Your task to perform on an android device: Open Wikipedia Image 0: 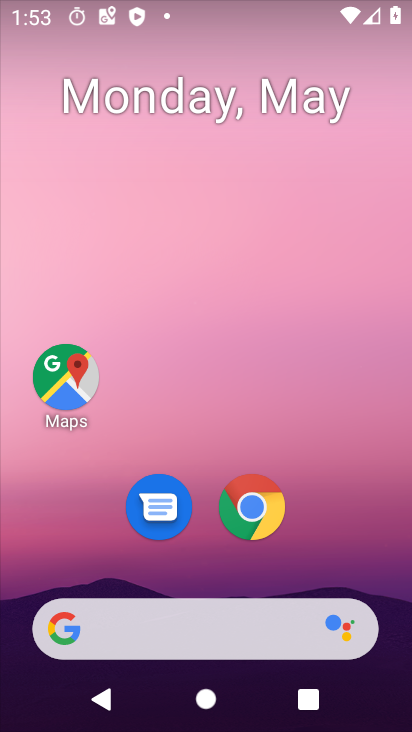
Step 0: drag from (399, 561) to (331, 184)
Your task to perform on an android device: Open Wikipedia Image 1: 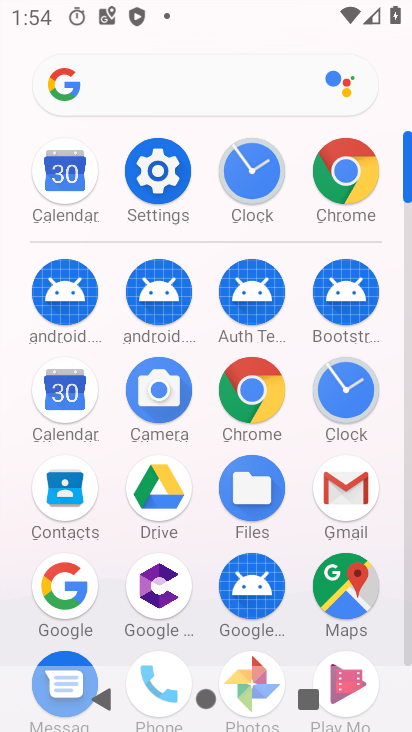
Step 1: click (262, 383)
Your task to perform on an android device: Open Wikipedia Image 2: 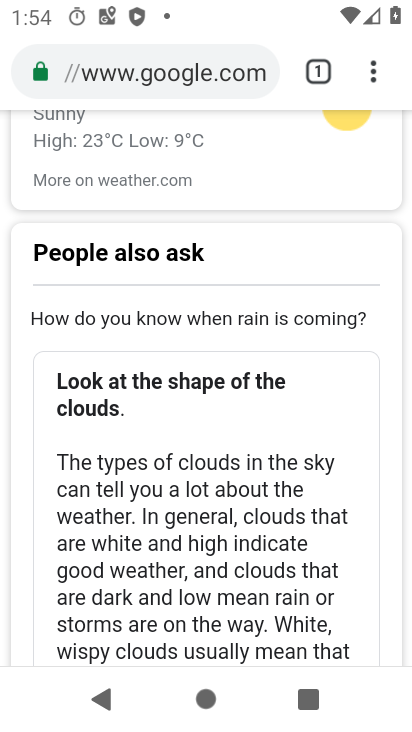
Step 2: click (321, 71)
Your task to perform on an android device: Open Wikipedia Image 3: 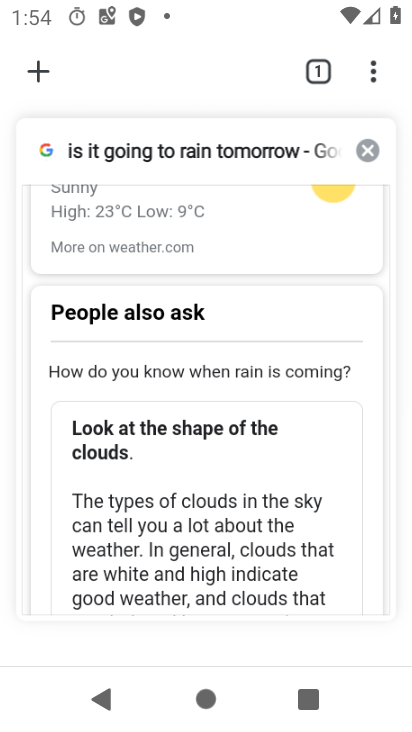
Step 3: click (32, 67)
Your task to perform on an android device: Open Wikipedia Image 4: 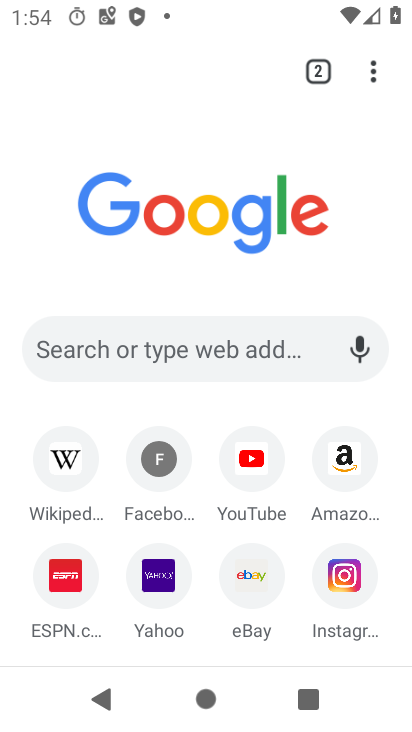
Step 4: click (56, 470)
Your task to perform on an android device: Open Wikipedia Image 5: 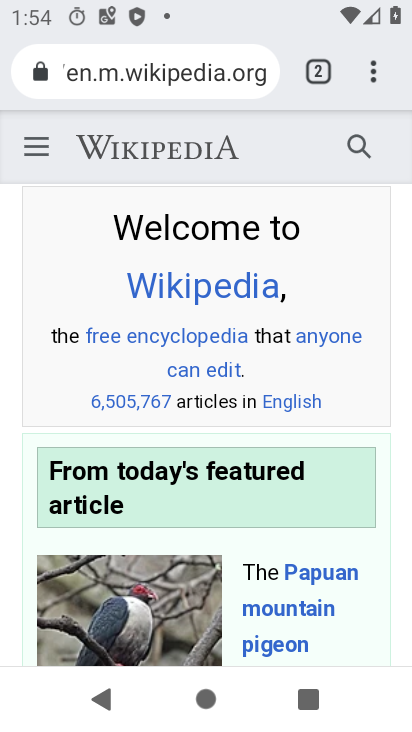
Step 5: task complete